Your task to perform on an android device: change the clock style Image 0: 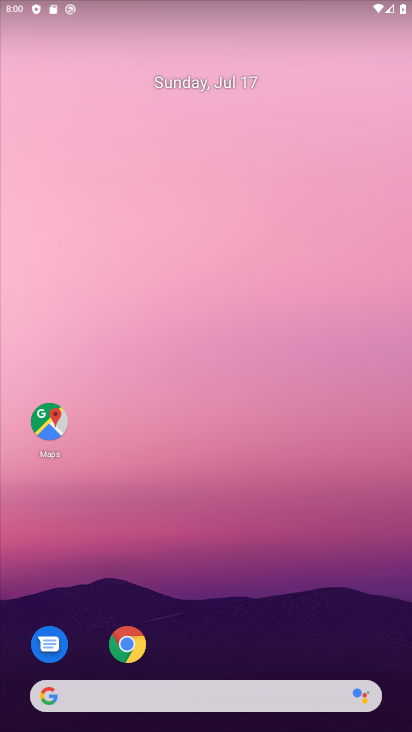
Step 0: drag from (297, 686) to (201, 58)
Your task to perform on an android device: change the clock style Image 1: 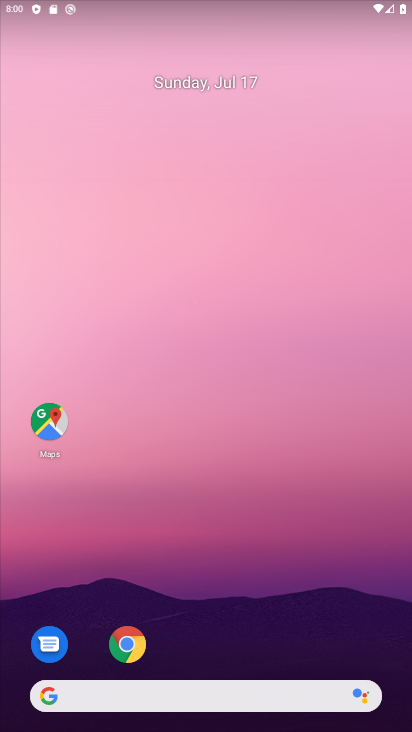
Step 1: drag from (264, 613) to (244, 244)
Your task to perform on an android device: change the clock style Image 2: 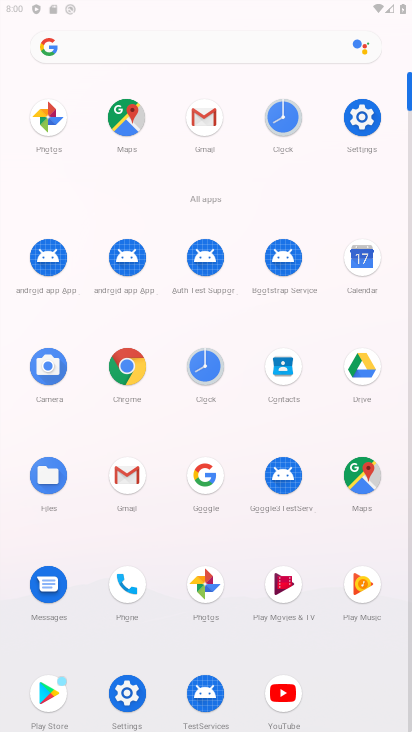
Step 2: drag from (206, 444) to (241, 2)
Your task to perform on an android device: change the clock style Image 3: 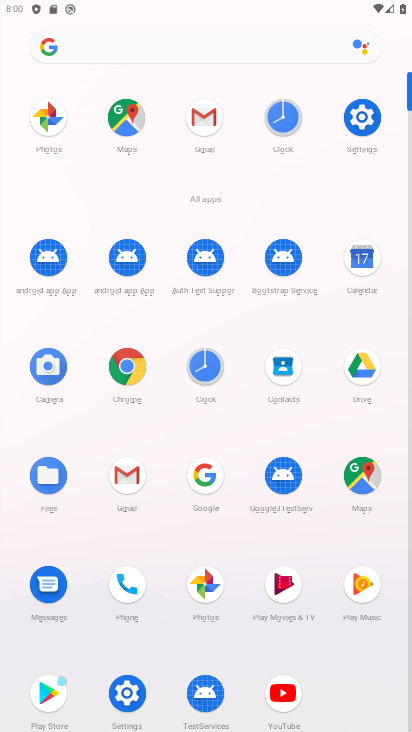
Step 3: click (206, 363)
Your task to perform on an android device: change the clock style Image 4: 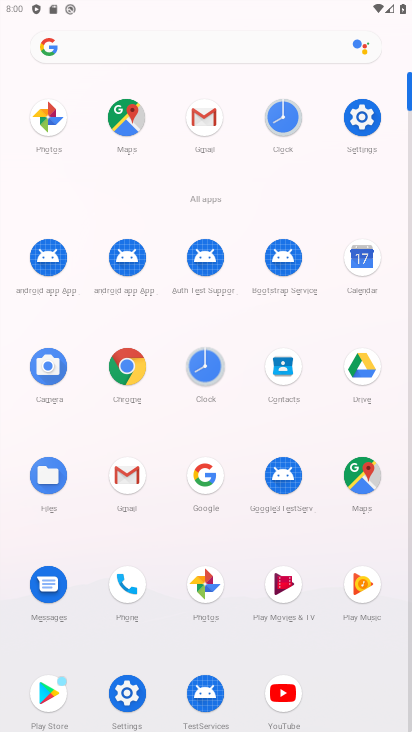
Step 4: click (223, 356)
Your task to perform on an android device: change the clock style Image 5: 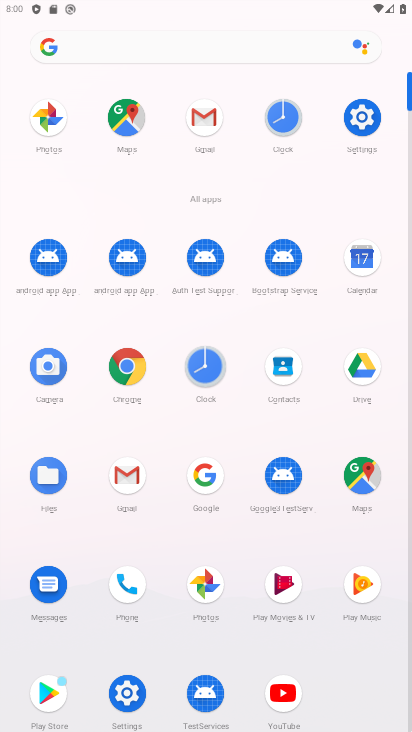
Step 5: click (213, 368)
Your task to perform on an android device: change the clock style Image 6: 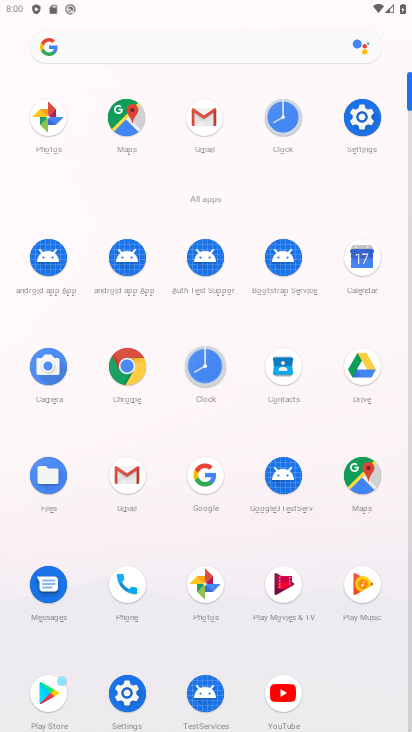
Step 6: click (207, 367)
Your task to perform on an android device: change the clock style Image 7: 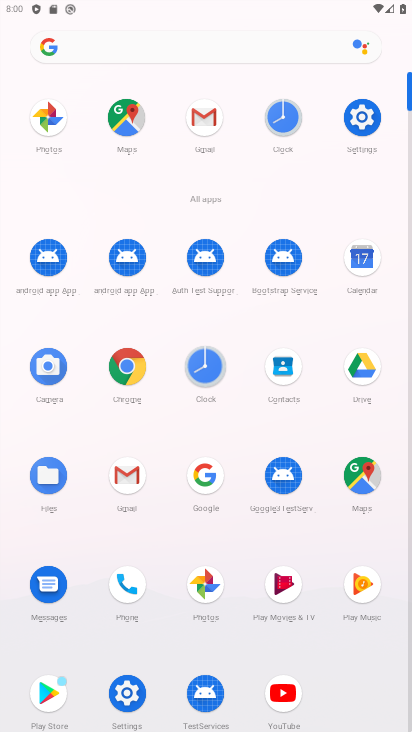
Step 7: click (194, 365)
Your task to perform on an android device: change the clock style Image 8: 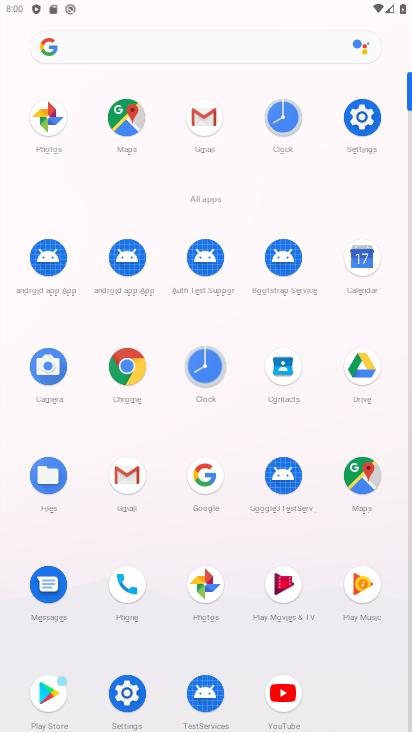
Step 8: click (195, 365)
Your task to perform on an android device: change the clock style Image 9: 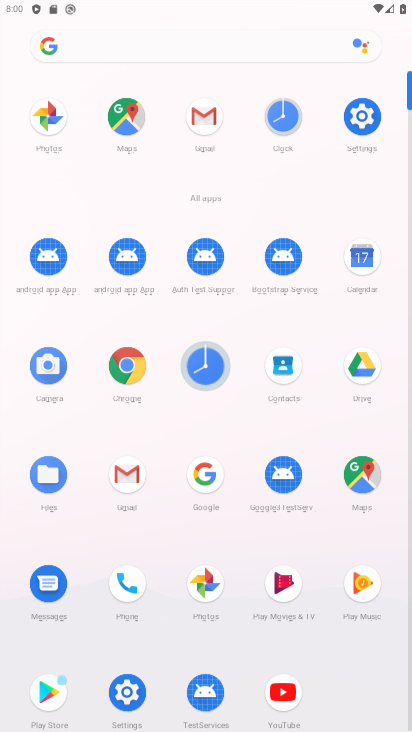
Step 9: click (200, 365)
Your task to perform on an android device: change the clock style Image 10: 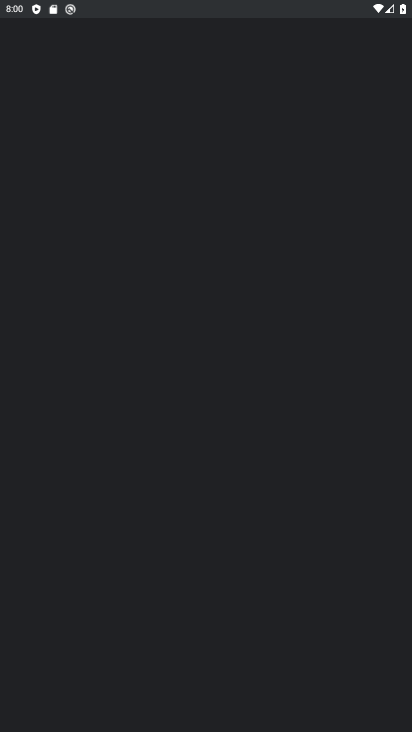
Step 10: click (201, 369)
Your task to perform on an android device: change the clock style Image 11: 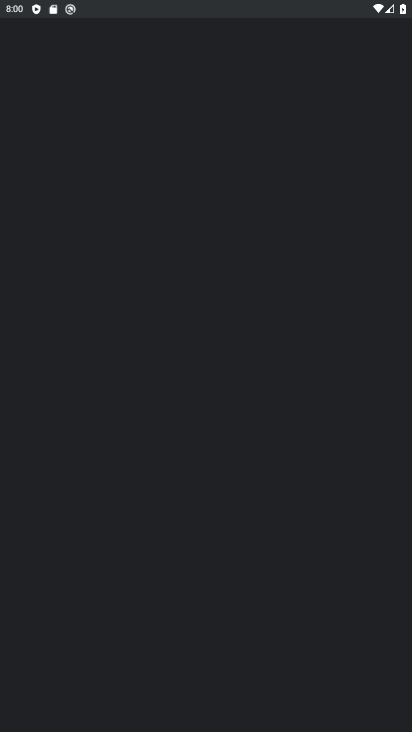
Step 11: click (200, 369)
Your task to perform on an android device: change the clock style Image 12: 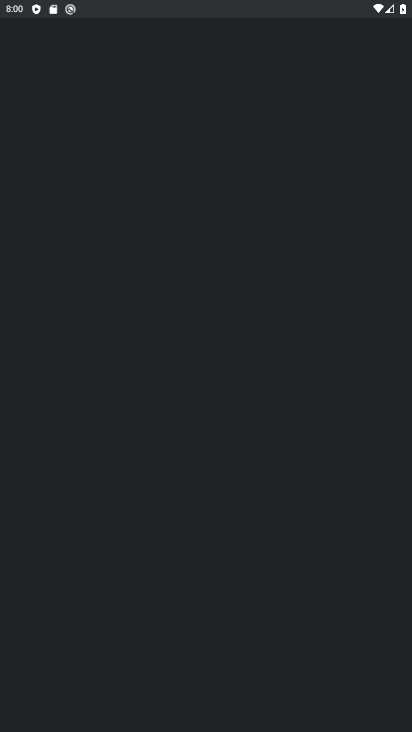
Step 12: click (201, 369)
Your task to perform on an android device: change the clock style Image 13: 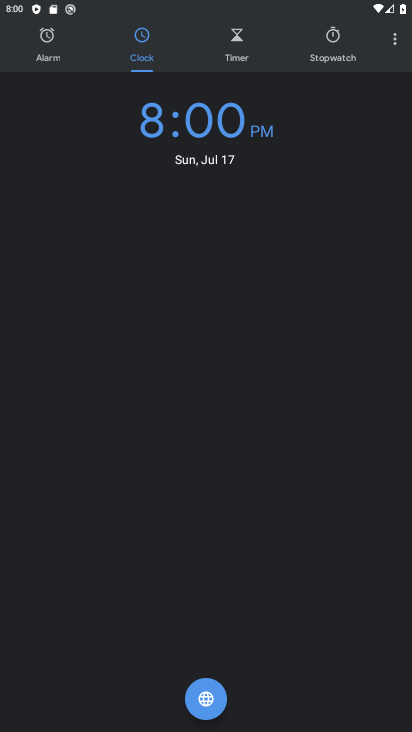
Step 13: click (385, 37)
Your task to perform on an android device: change the clock style Image 14: 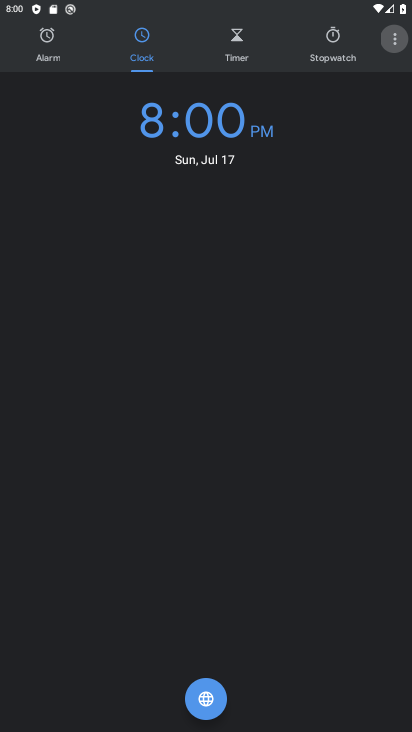
Step 14: click (385, 37)
Your task to perform on an android device: change the clock style Image 15: 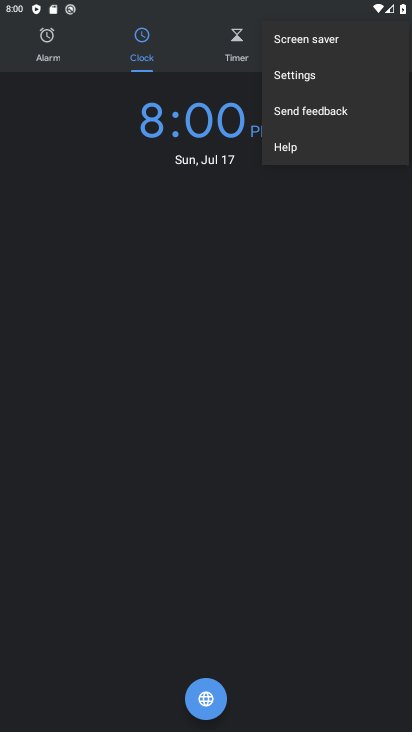
Step 15: click (300, 77)
Your task to perform on an android device: change the clock style Image 16: 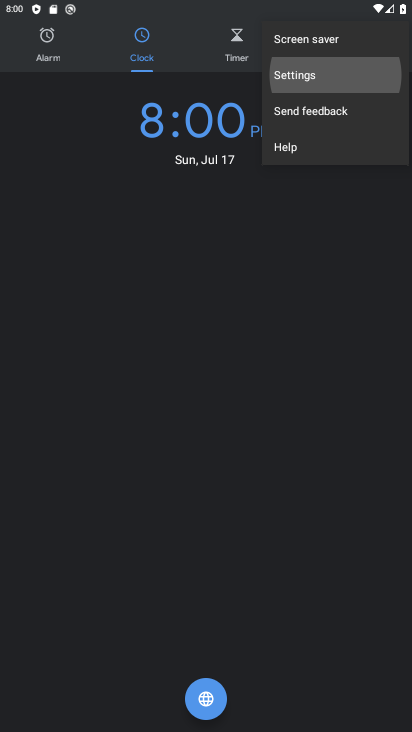
Step 16: click (298, 79)
Your task to perform on an android device: change the clock style Image 17: 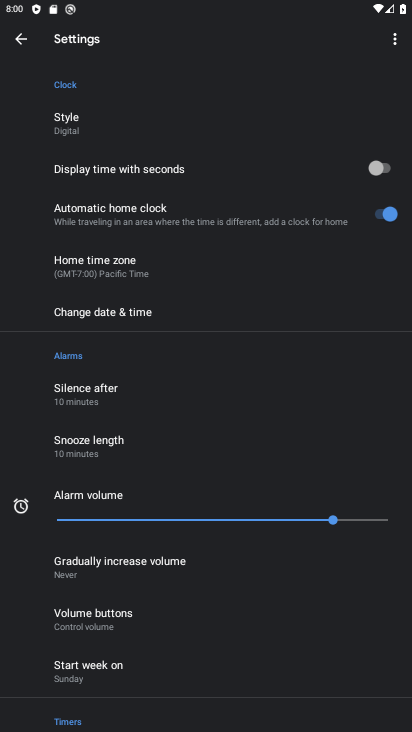
Step 17: click (72, 124)
Your task to perform on an android device: change the clock style Image 18: 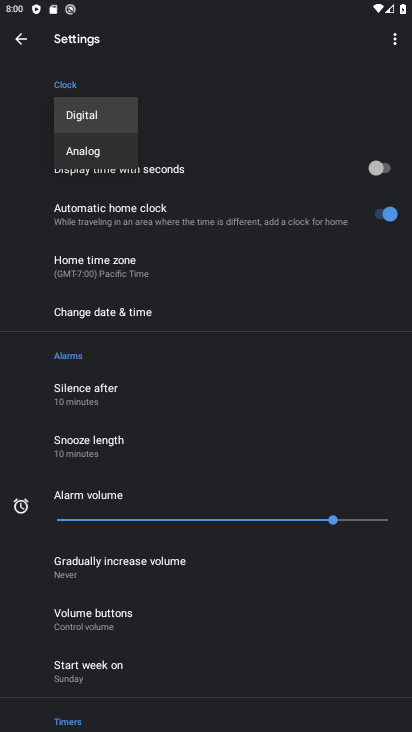
Step 18: click (232, 130)
Your task to perform on an android device: change the clock style Image 19: 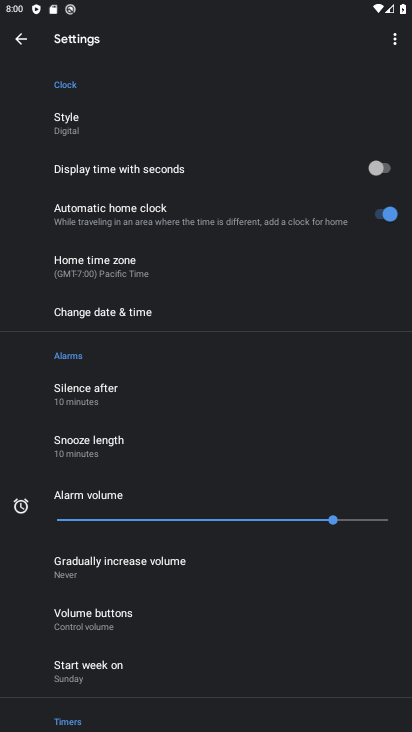
Step 19: click (81, 118)
Your task to perform on an android device: change the clock style Image 20: 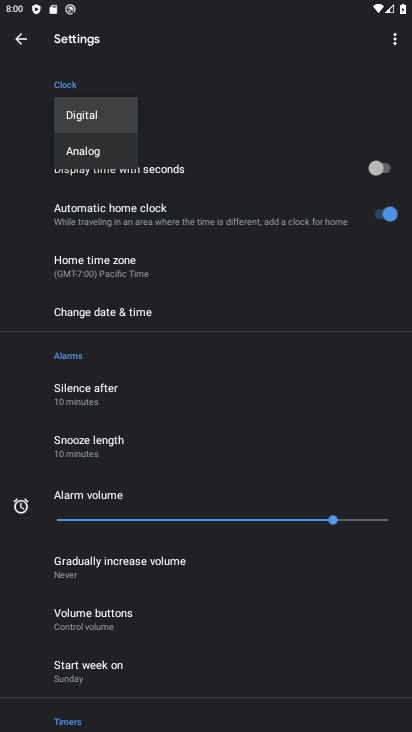
Step 20: click (98, 155)
Your task to perform on an android device: change the clock style Image 21: 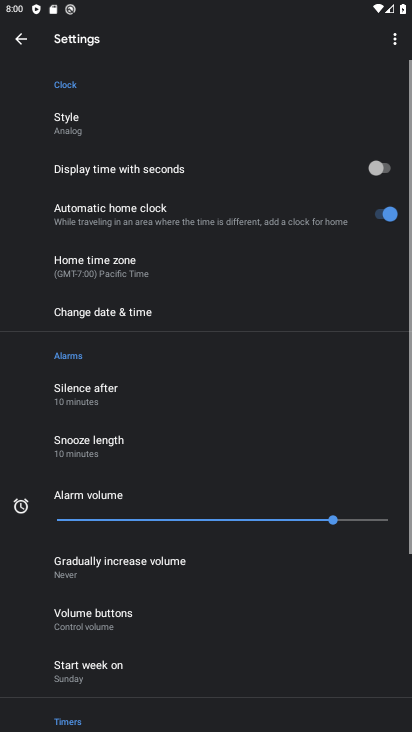
Step 21: task complete